Your task to perform on an android device: Go to CNN.com Image 0: 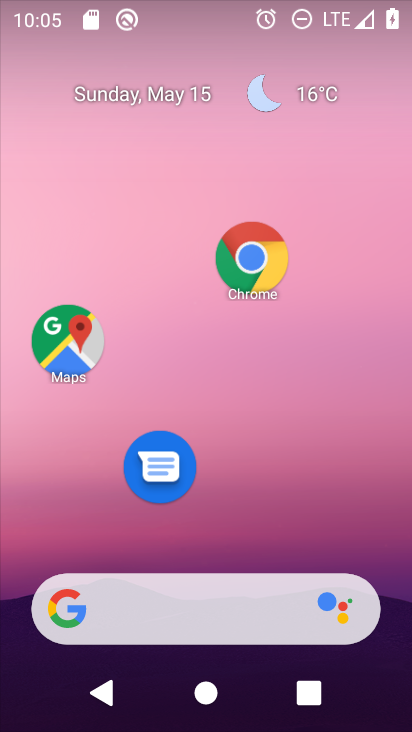
Step 0: click (319, 94)
Your task to perform on an android device: Go to CNN.com Image 1: 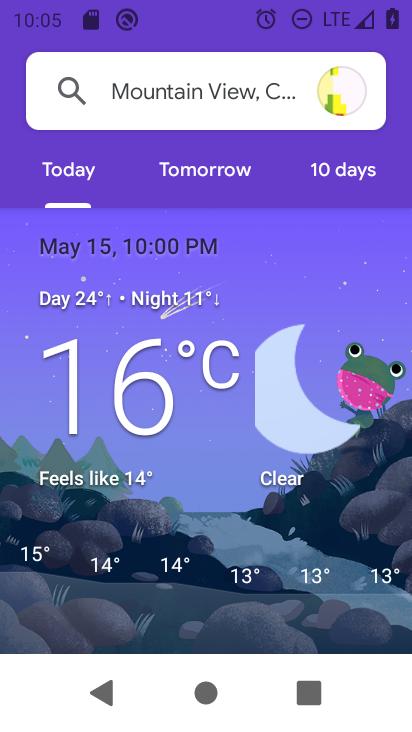
Step 1: click (213, 161)
Your task to perform on an android device: Go to CNN.com Image 2: 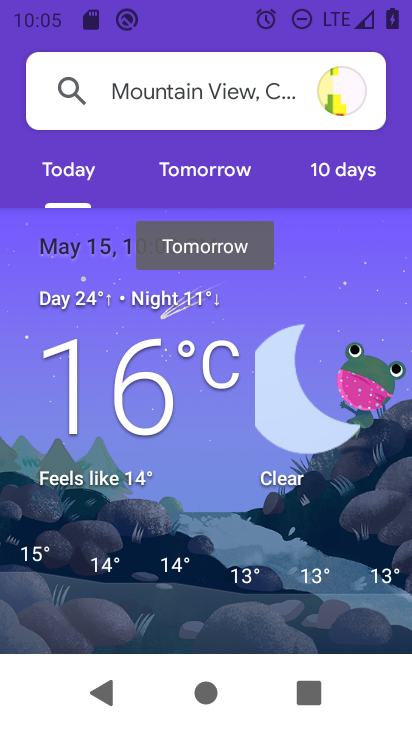
Step 2: click (220, 162)
Your task to perform on an android device: Go to CNN.com Image 3: 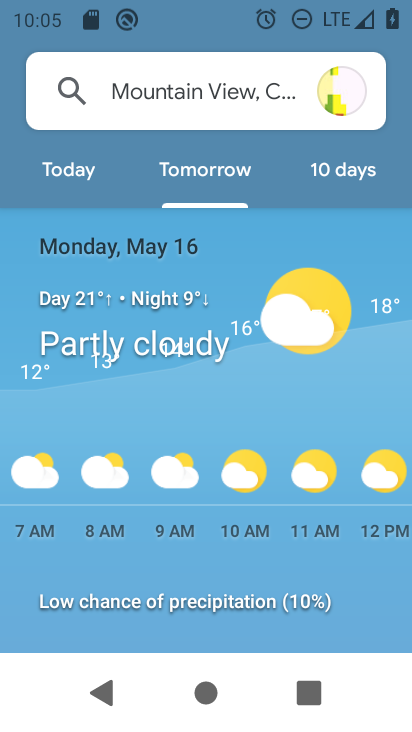
Step 3: task complete